Your task to perform on an android device: Empty the shopping cart on newegg. Search for usb-c to usb-b on newegg, select the first entry, add it to the cart, then select checkout. Image 0: 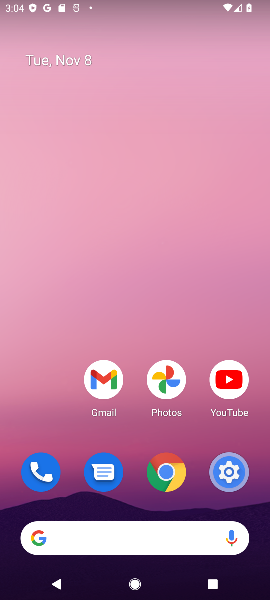
Step 0: click (147, 540)
Your task to perform on an android device: Empty the shopping cart on newegg. Search for usb-c to usb-b on newegg, select the first entry, add it to the cart, then select checkout. Image 1: 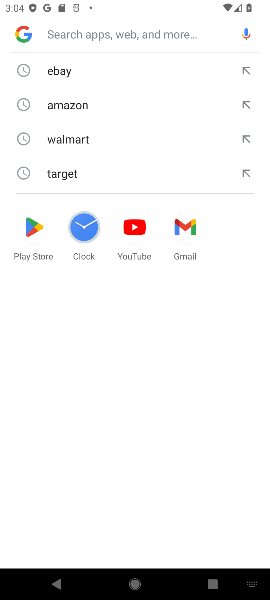
Step 1: type "newegg"
Your task to perform on an android device: Empty the shopping cart on newegg. Search for usb-c to usb-b on newegg, select the first entry, add it to the cart, then select checkout. Image 2: 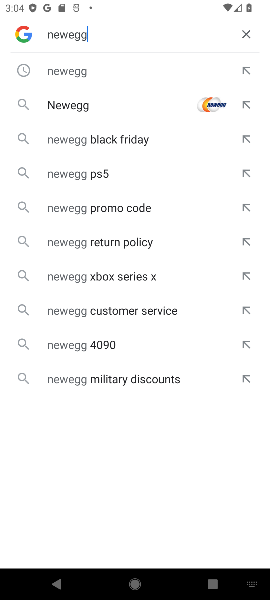
Step 2: click (102, 109)
Your task to perform on an android device: Empty the shopping cart on newegg. Search for usb-c to usb-b on newegg, select the first entry, add it to the cart, then select checkout. Image 3: 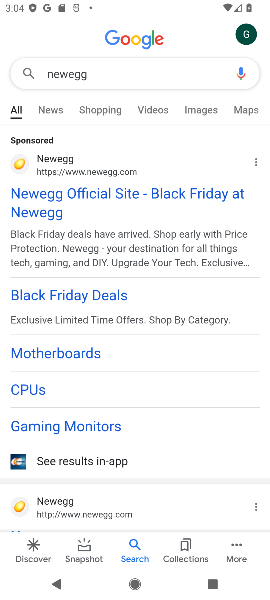
Step 3: click (38, 197)
Your task to perform on an android device: Empty the shopping cart on newegg. Search for usb-c to usb-b on newegg, select the first entry, add it to the cart, then select checkout. Image 4: 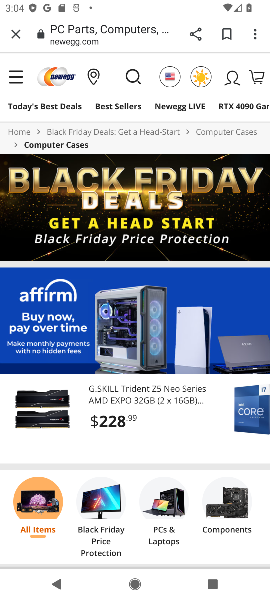
Step 4: click (175, 77)
Your task to perform on an android device: Empty the shopping cart on newegg. Search for usb-c to usb-b on newegg, select the first entry, add it to the cart, then select checkout. Image 5: 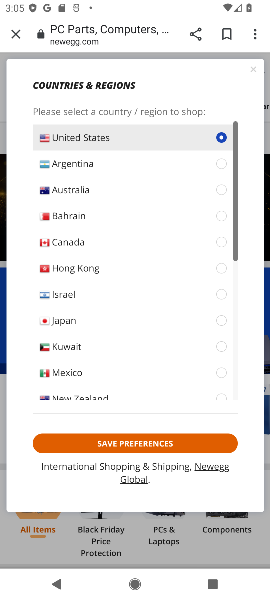
Step 5: click (108, 445)
Your task to perform on an android device: Empty the shopping cart on newegg. Search for usb-c to usb-b on newegg, select the first entry, add it to the cart, then select checkout. Image 6: 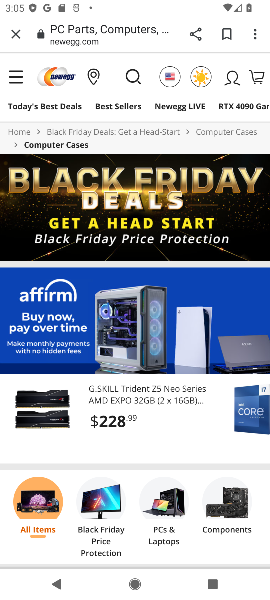
Step 6: task complete